Your task to perform on an android device: Open display settings Image 0: 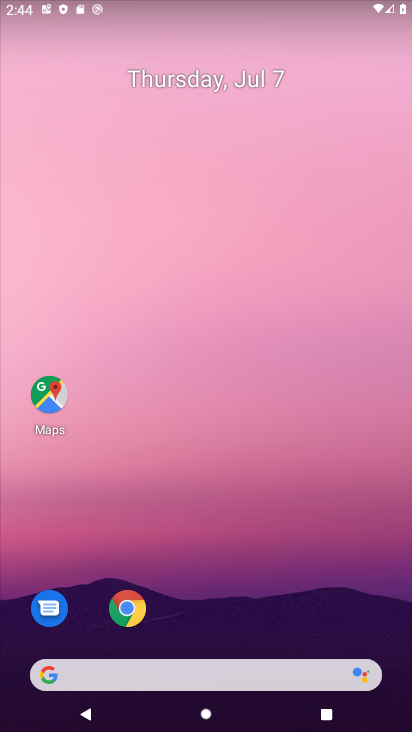
Step 0: drag from (402, 648) to (355, 116)
Your task to perform on an android device: Open display settings Image 1: 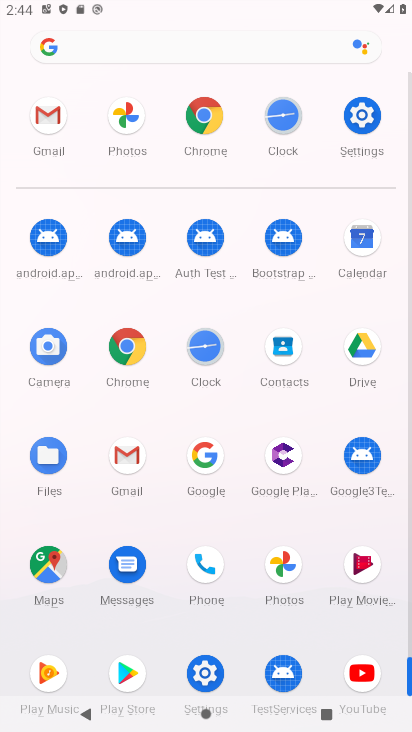
Step 1: click (205, 677)
Your task to perform on an android device: Open display settings Image 2: 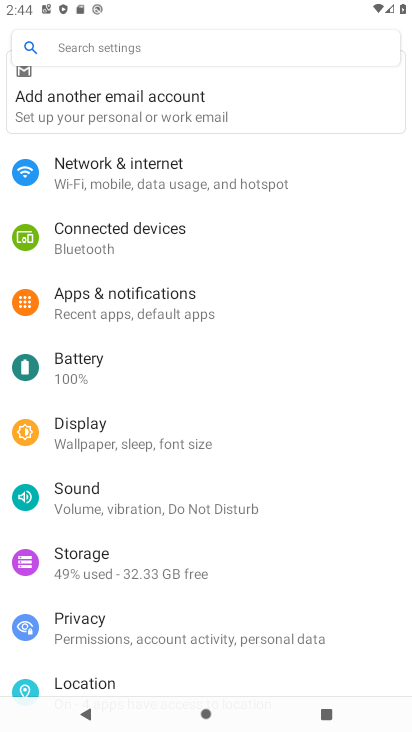
Step 2: click (87, 433)
Your task to perform on an android device: Open display settings Image 3: 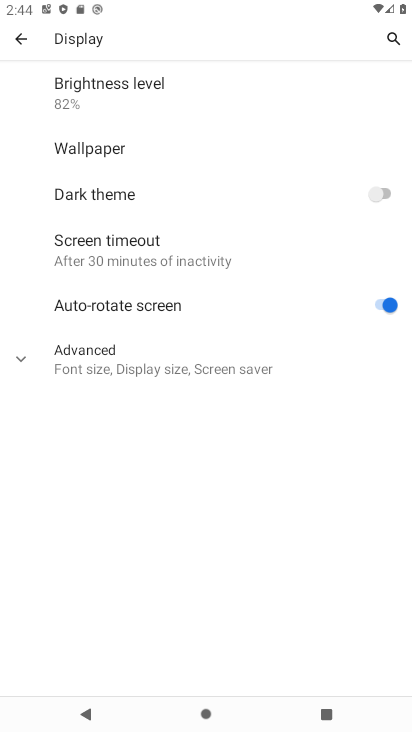
Step 3: click (21, 359)
Your task to perform on an android device: Open display settings Image 4: 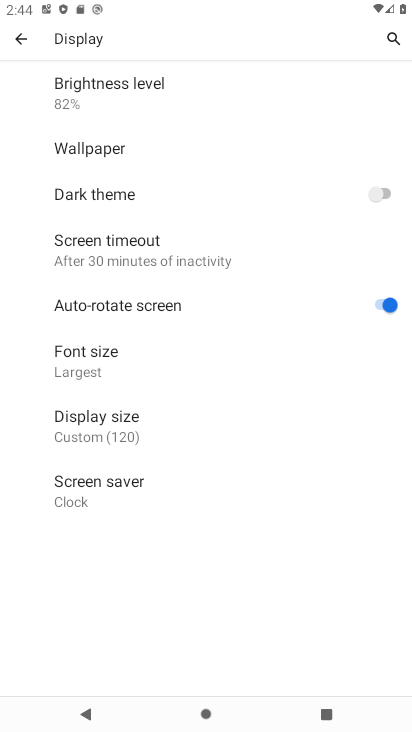
Step 4: task complete